Your task to perform on an android device: empty trash in google photos Image 0: 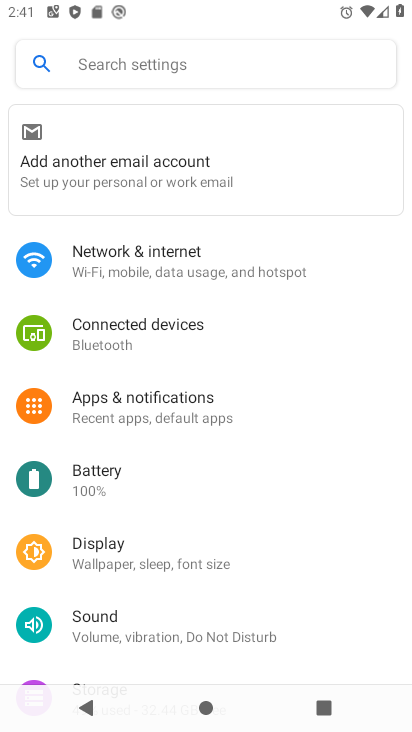
Step 0: press home button
Your task to perform on an android device: empty trash in google photos Image 1: 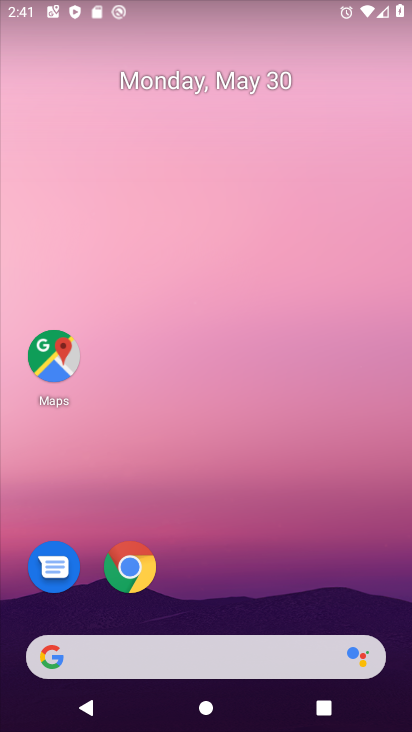
Step 1: drag from (237, 598) to (258, 25)
Your task to perform on an android device: empty trash in google photos Image 2: 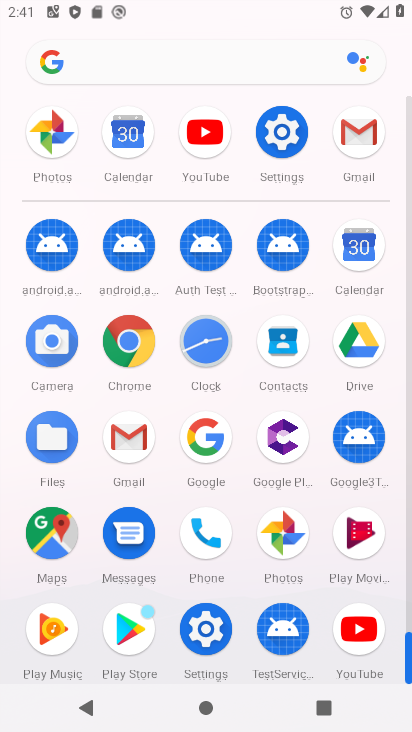
Step 2: click (277, 549)
Your task to perform on an android device: empty trash in google photos Image 3: 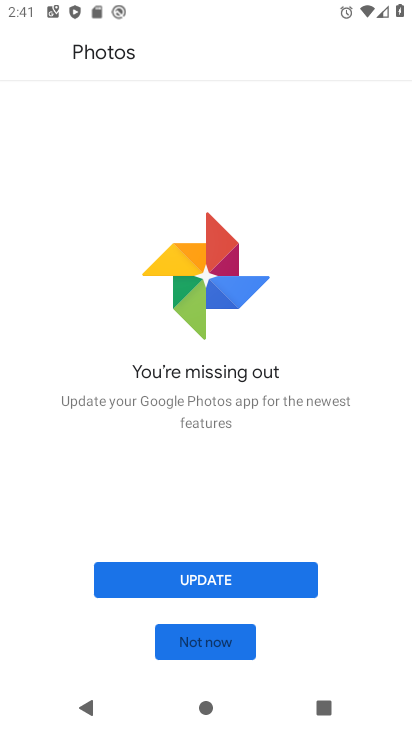
Step 3: click (215, 631)
Your task to perform on an android device: empty trash in google photos Image 4: 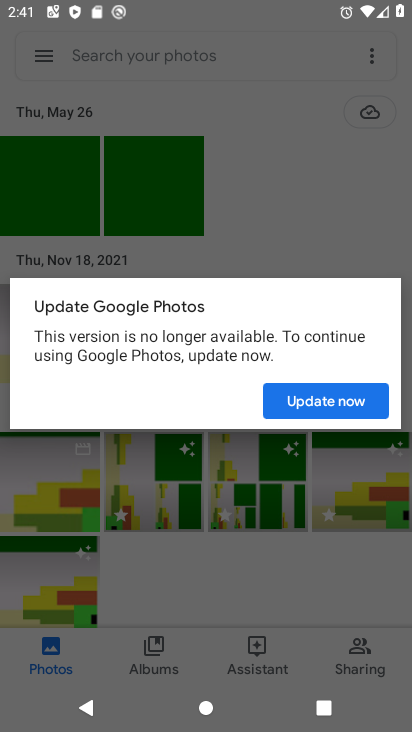
Step 4: click (330, 414)
Your task to perform on an android device: empty trash in google photos Image 5: 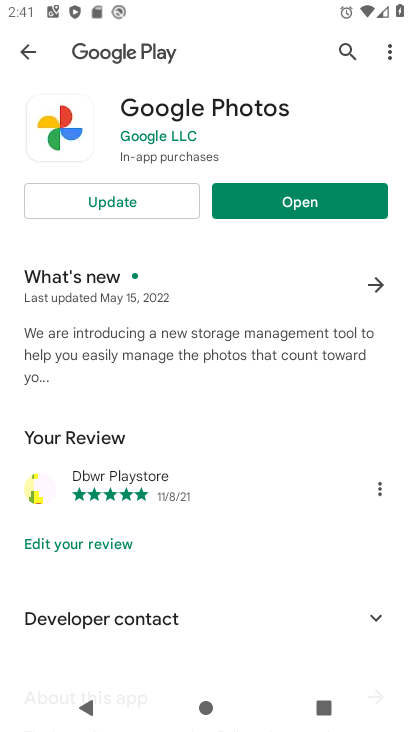
Step 5: click (305, 199)
Your task to perform on an android device: empty trash in google photos Image 6: 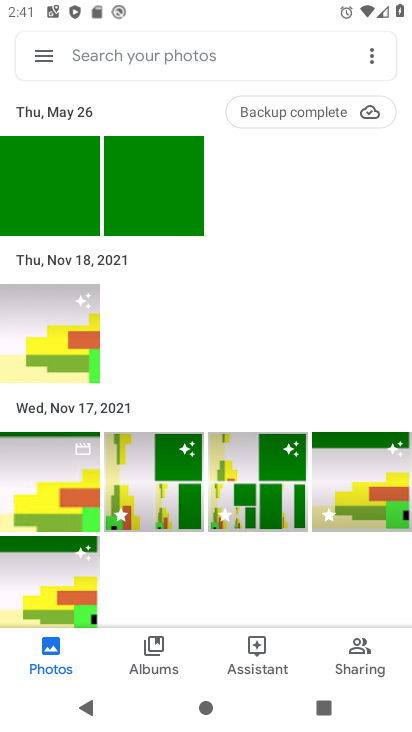
Step 6: click (51, 57)
Your task to perform on an android device: empty trash in google photos Image 7: 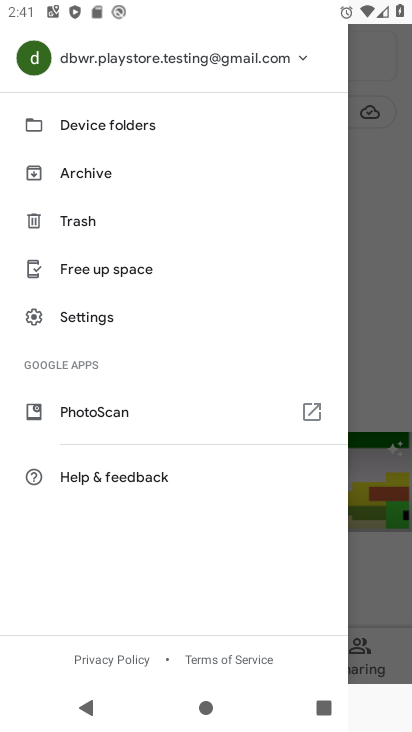
Step 7: click (91, 229)
Your task to perform on an android device: empty trash in google photos Image 8: 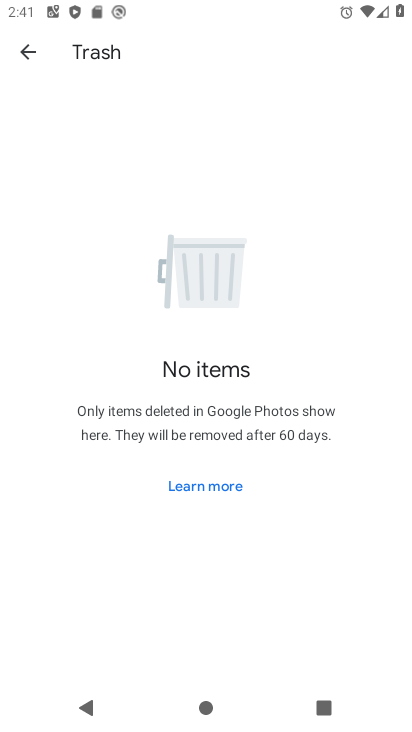
Step 8: task complete